Your task to perform on an android device: change the upload size in google photos Image 0: 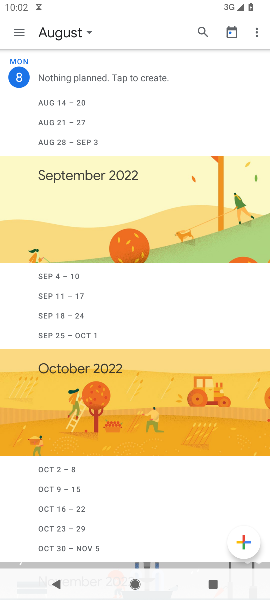
Step 0: press home button
Your task to perform on an android device: change the upload size in google photos Image 1: 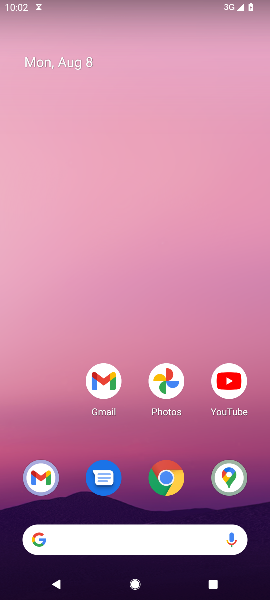
Step 1: click (167, 379)
Your task to perform on an android device: change the upload size in google photos Image 2: 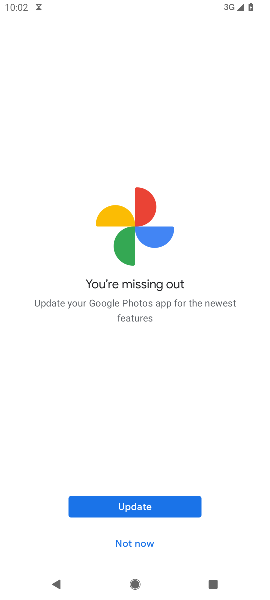
Step 2: click (120, 504)
Your task to perform on an android device: change the upload size in google photos Image 3: 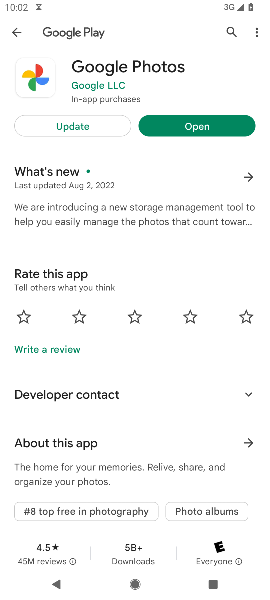
Step 3: click (49, 126)
Your task to perform on an android device: change the upload size in google photos Image 4: 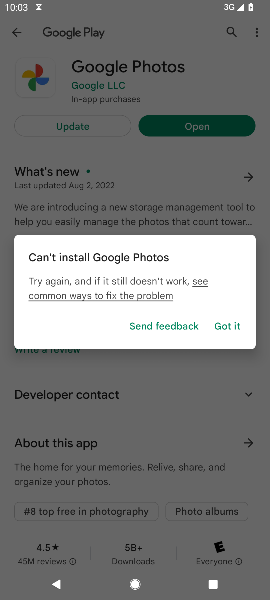
Step 4: task complete